Your task to perform on an android device: find photos in the google photos app Image 0: 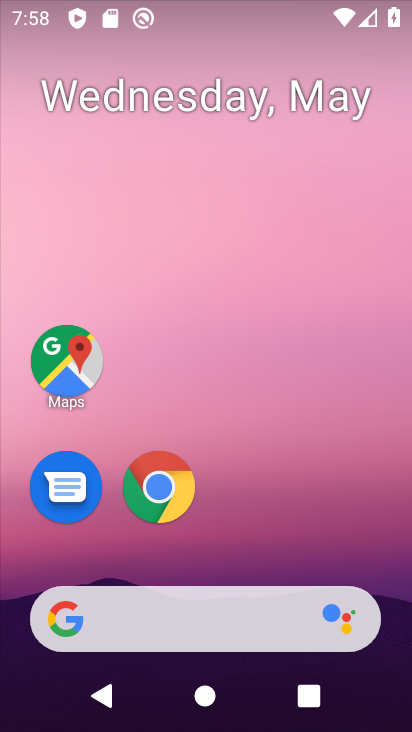
Step 0: drag from (275, 508) to (253, 80)
Your task to perform on an android device: find photos in the google photos app Image 1: 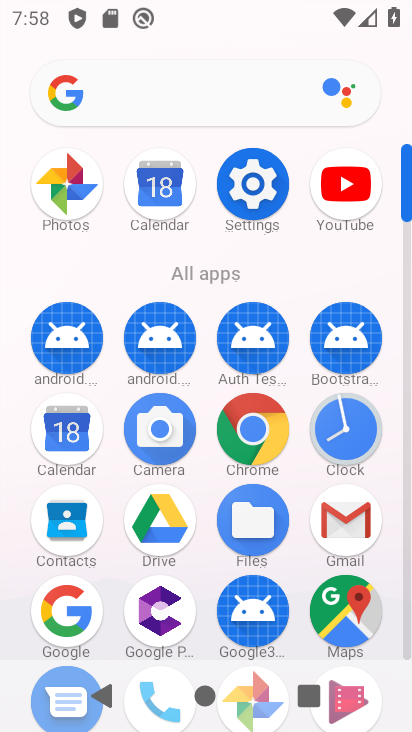
Step 1: click (72, 186)
Your task to perform on an android device: find photos in the google photos app Image 2: 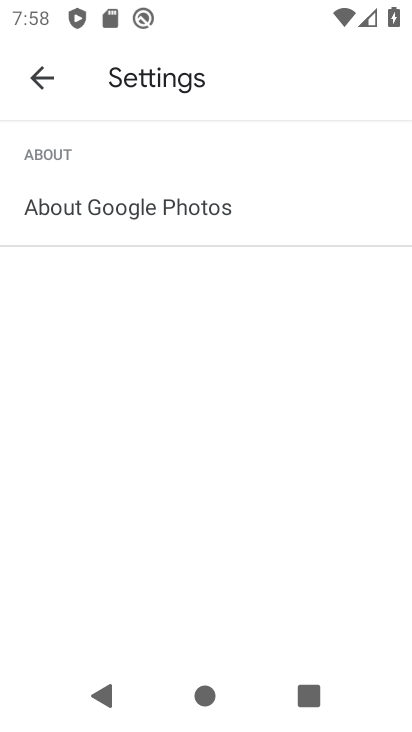
Step 2: click (43, 64)
Your task to perform on an android device: find photos in the google photos app Image 3: 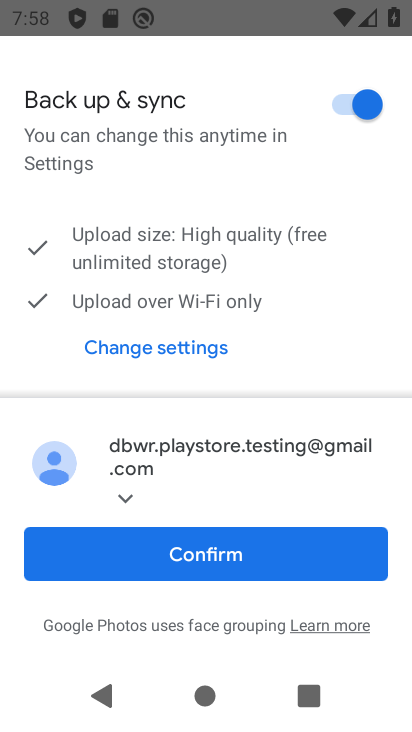
Step 3: click (238, 557)
Your task to perform on an android device: find photos in the google photos app Image 4: 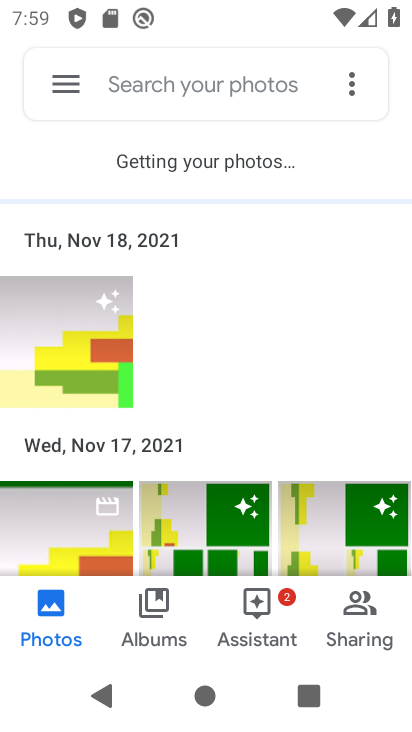
Step 4: task complete